Your task to perform on an android device: create a new album in the google photos Image 0: 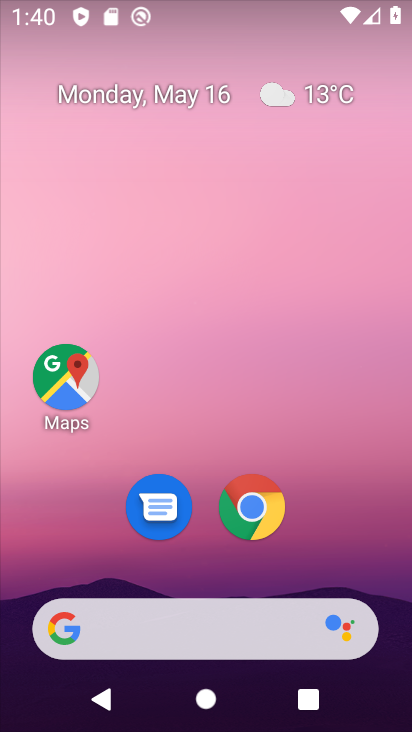
Step 0: drag from (357, 547) to (378, 82)
Your task to perform on an android device: create a new album in the google photos Image 1: 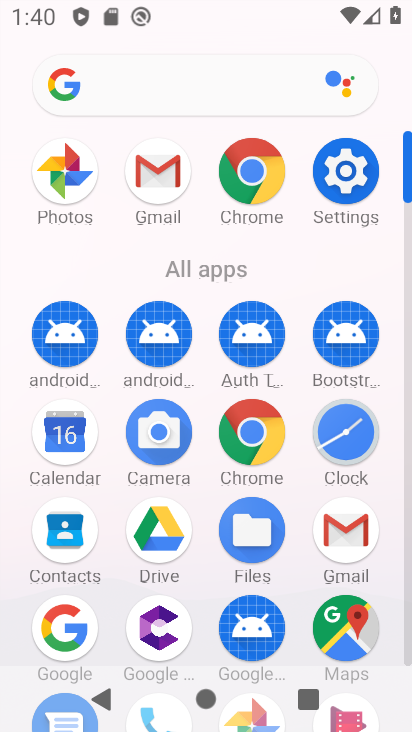
Step 1: drag from (200, 585) to (208, 233)
Your task to perform on an android device: create a new album in the google photos Image 2: 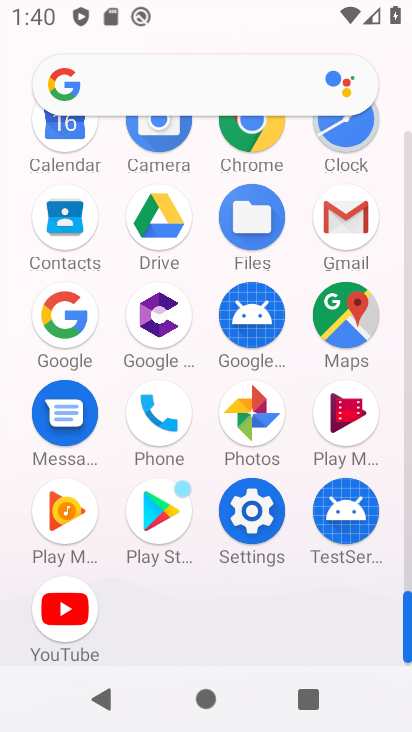
Step 2: click (260, 415)
Your task to perform on an android device: create a new album in the google photos Image 3: 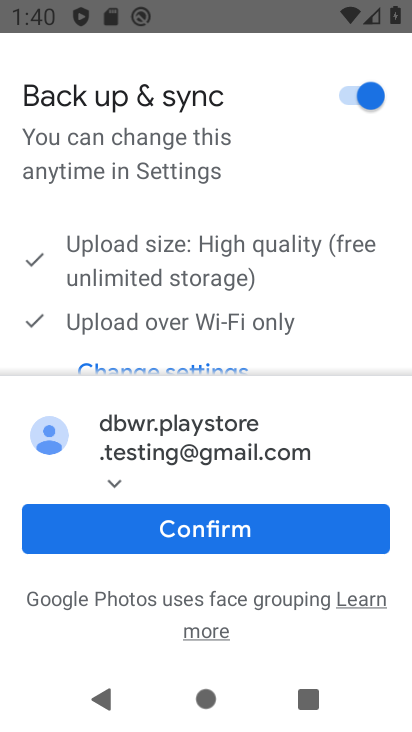
Step 3: click (294, 544)
Your task to perform on an android device: create a new album in the google photos Image 4: 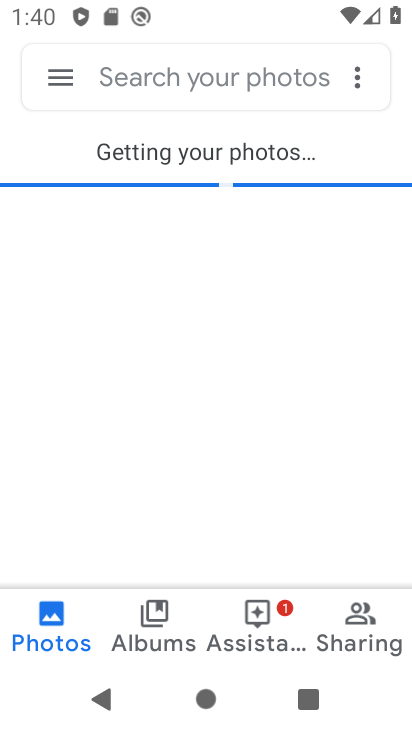
Step 4: click (357, 77)
Your task to perform on an android device: create a new album in the google photos Image 5: 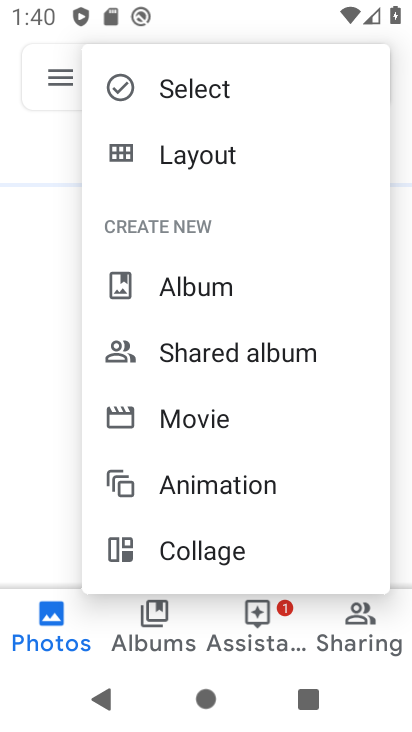
Step 5: click (231, 295)
Your task to perform on an android device: create a new album in the google photos Image 6: 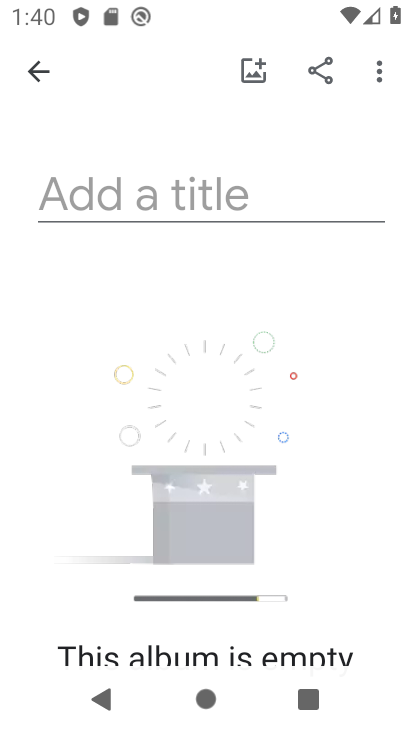
Step 6: click (201, 197)
Your task to perform on an android device: create a new album in the google photos Image 7: 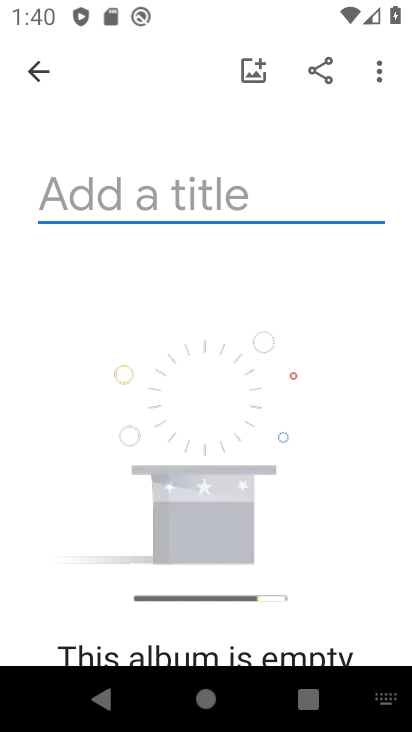
Step 7: type "fgav"
Your task to perform on an android device: create a new album in the google photos Image 8: 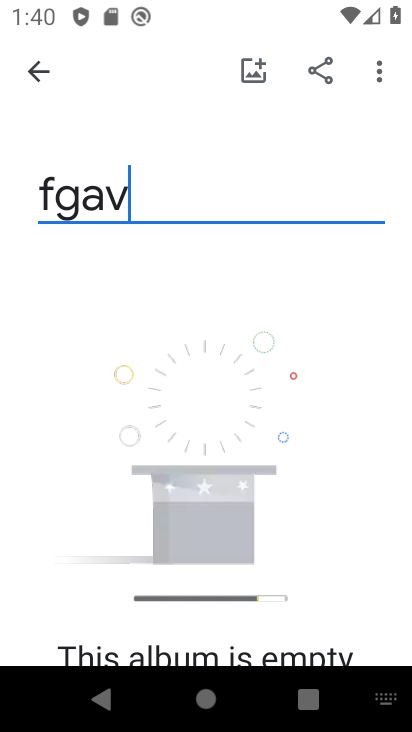
Step 8: drag from (322, 569) to (316, 296)
Your task to perform on an android device: create a new album in the google photos Image 9: 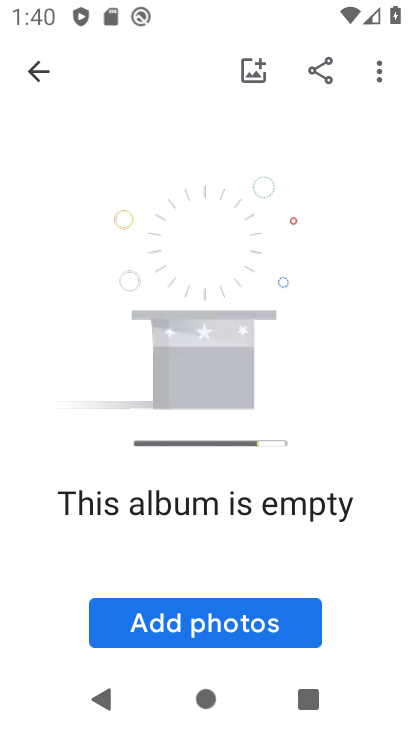
Step 9: click (274, 629)
Your task to perform on an android device: create a new album in the google photos Image 10: 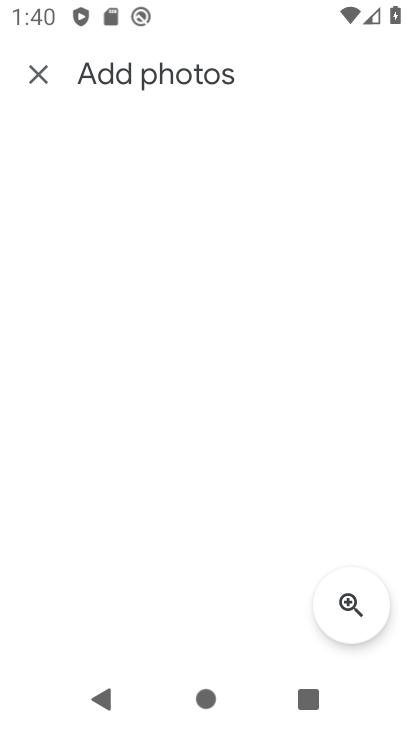
Step 10: task complete